Your task to perform on an android device: What's on my calendar tomorrow? Image 0: 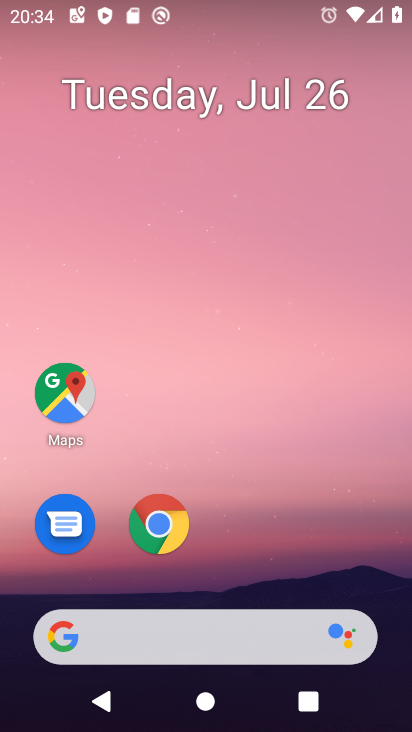
Step 0: drag from (279, 493) to (299, 28)
Your task to perform on an android device: What's on my calendar tomorrow? Image 1: 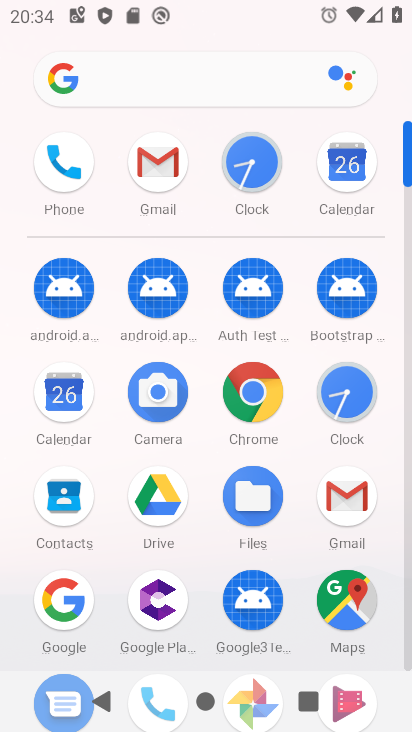
Step 1: click (347, 166)
Your task to perform on an android device: What's on my calendar tomorrow? Image 2: 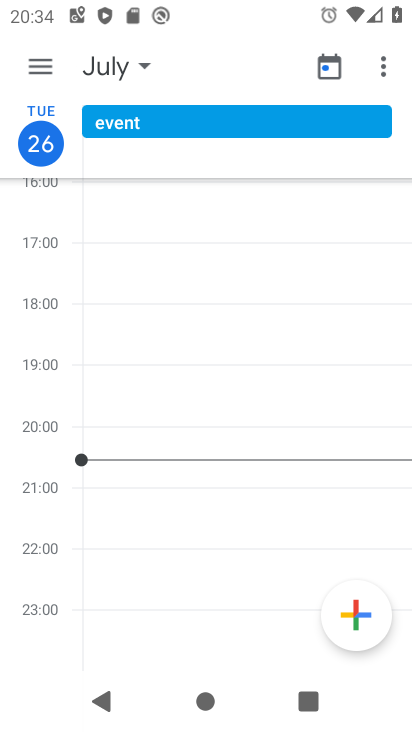
Step 2: click (38, 53)
Your task to perform on an android device: What's on my calendar tomorrow? Image 3: 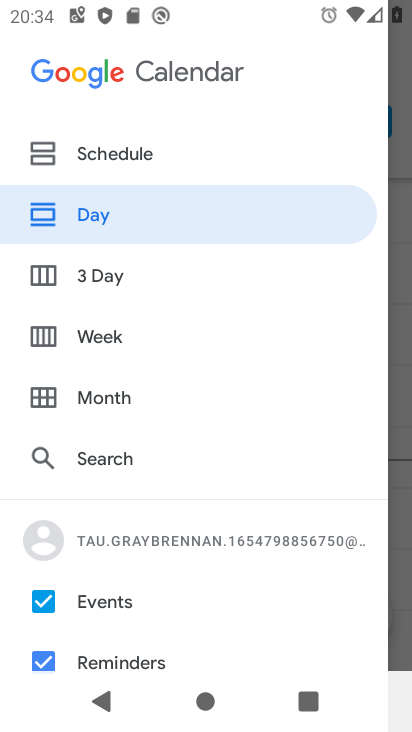
Step 3: click (90, 328)
Your task to perform on an android device: What's on my calendar tomorrow? Image 4: 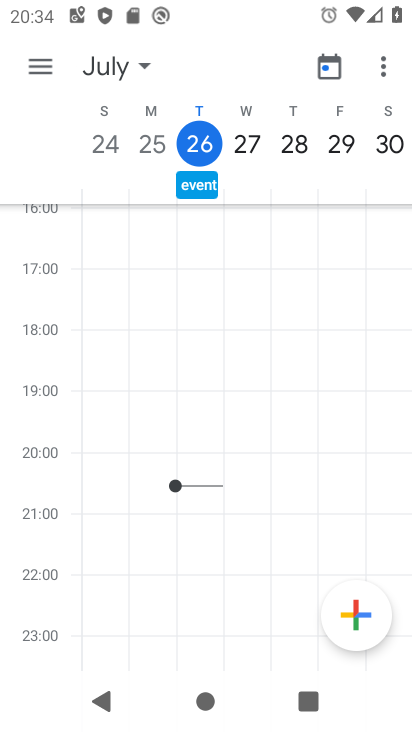
Step 4: task complete